Your task to perform on an android device: Add "razer blade" to the cart on bestbuy, then select checkout. Image 0: 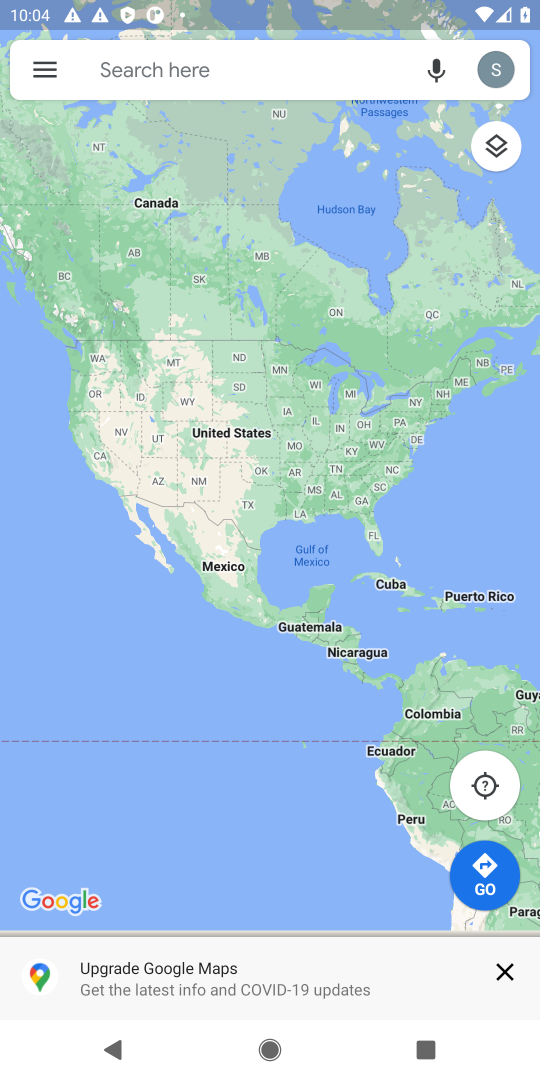
Step 0: press home button
Your task to perform on an android device: Add "razer blade" to the cart on bestbuy, then select checkout. Image 1: 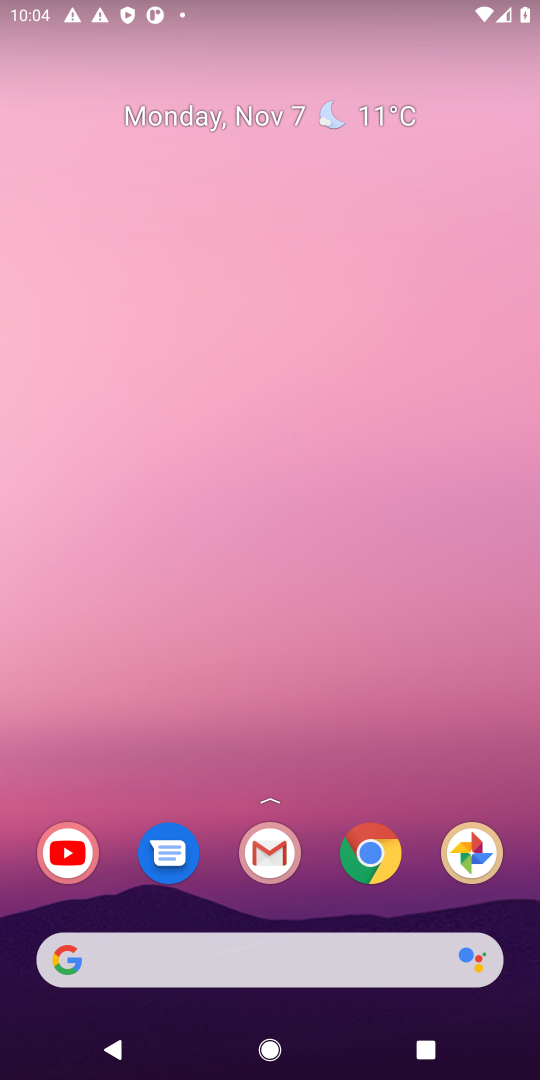
Step 1: click (386, 948)
Your task to perform on an android device: Add "razer blade" to the cart on bestbuy, then select checkout. Image 2: 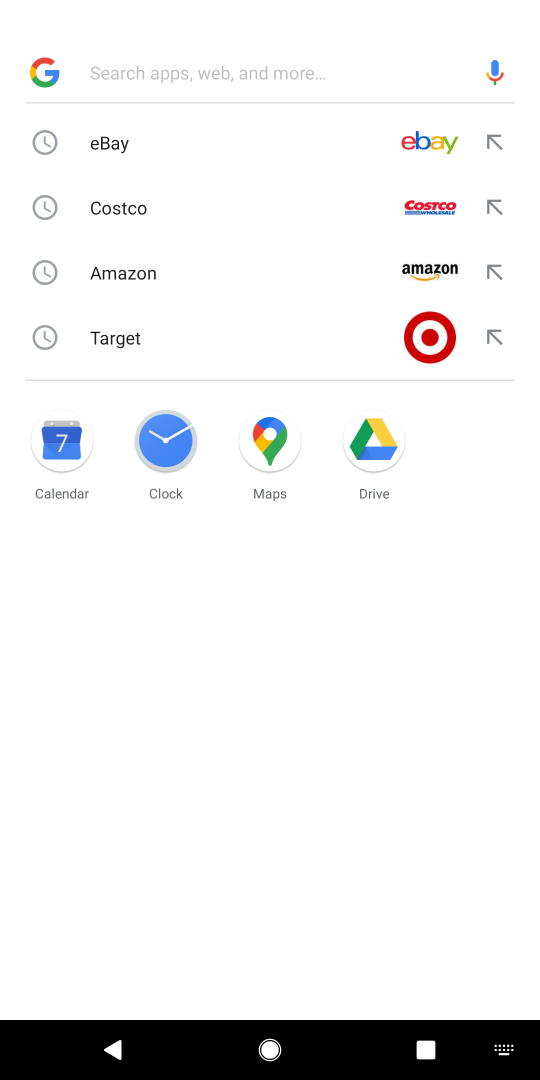
Step 2: type "bestbuy"
Your task to perform on an android device: Add "razer blade" to the cart on bestbuy, then select checkout. Image 3: 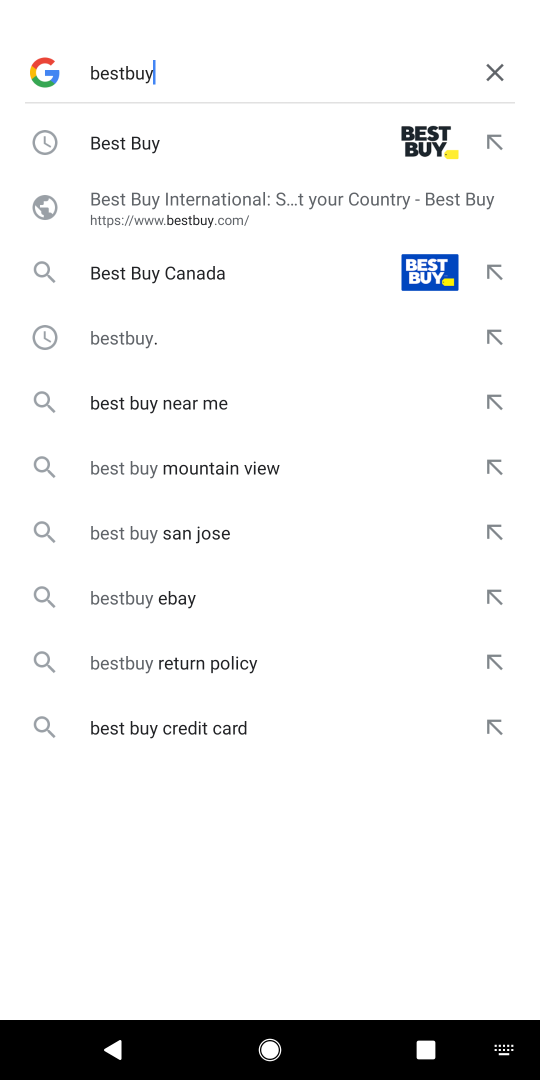
Step 3: click (199, 154)
Your task to perform on an android device: Add "razer blade" to the cart on bestbuy, then select checkout. Image 4: 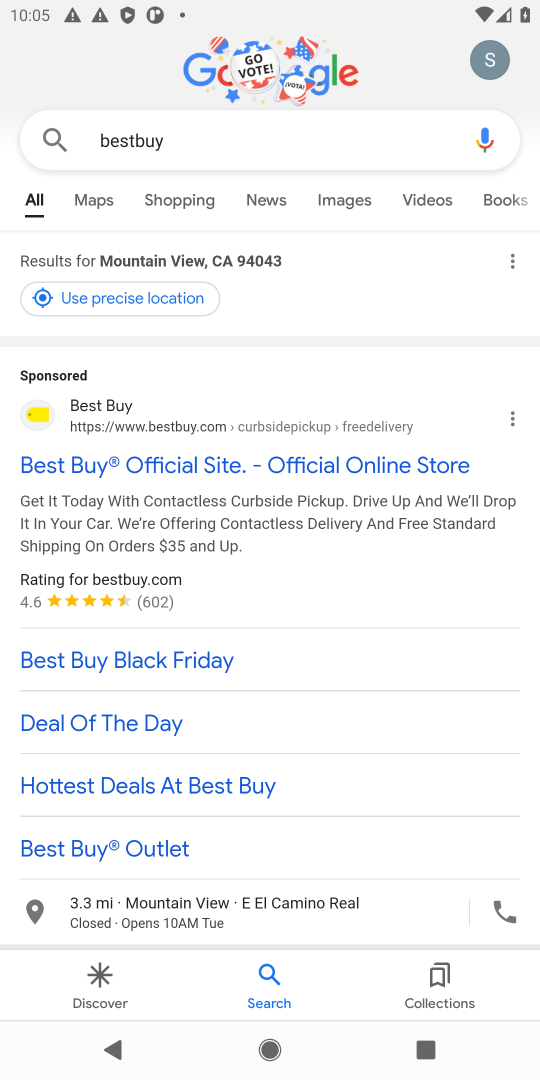
Step 4: click (313, 469)
Your task to perform on an android device: Add "razer blade" to the cart on bestbuy, then select checkout. Image 5: 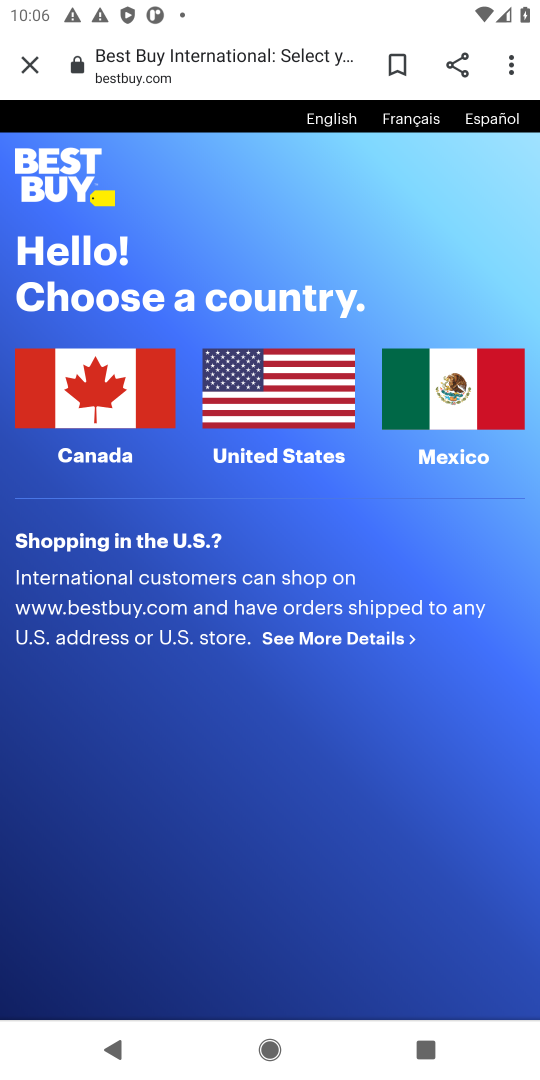
Step 5: click (28, 398)
Your task to perform on an android device: Add "razer blade" to the cart on bestbuy, then select checkout. Image 6: 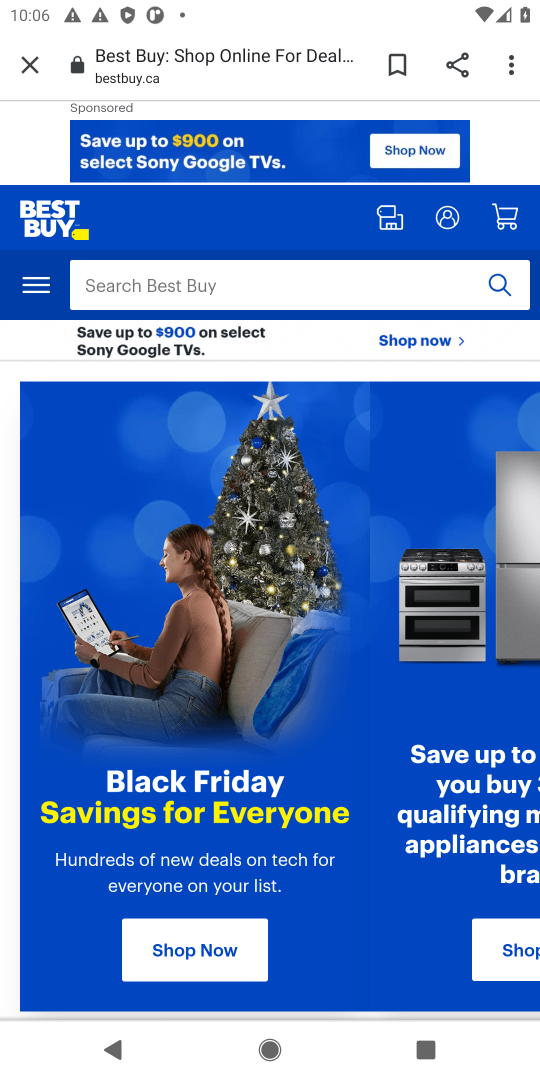
Step 6: click (267, 264)
Your task to perform on an android device: Add "razer blade" to the cart on bestbuy, then select checkout. Image 7: 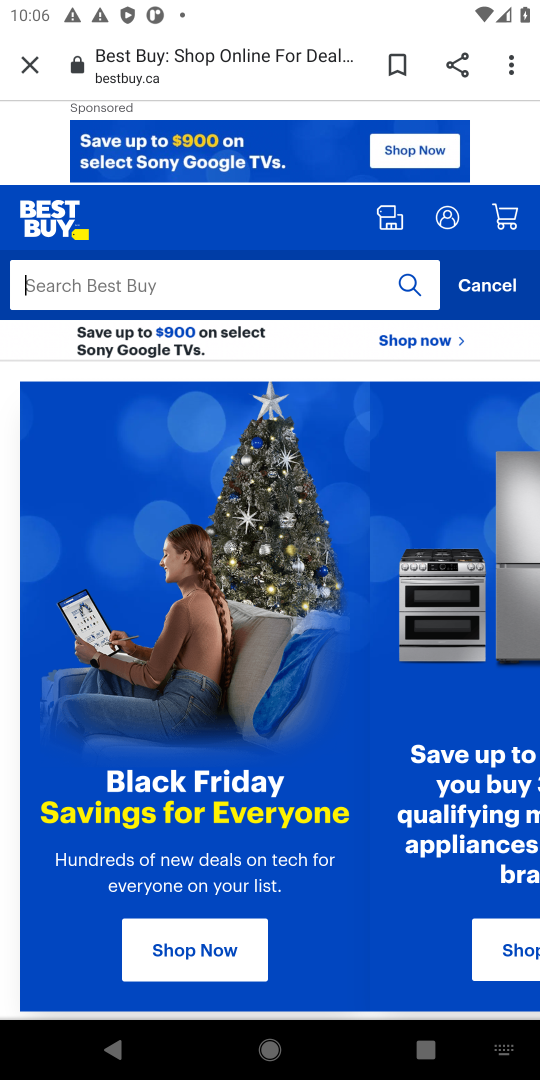
Step 7: type "razer blade"
Your task to perform on an android device: Add "razer blade" to the cart on bestbuy, then select checkout. Image 8: 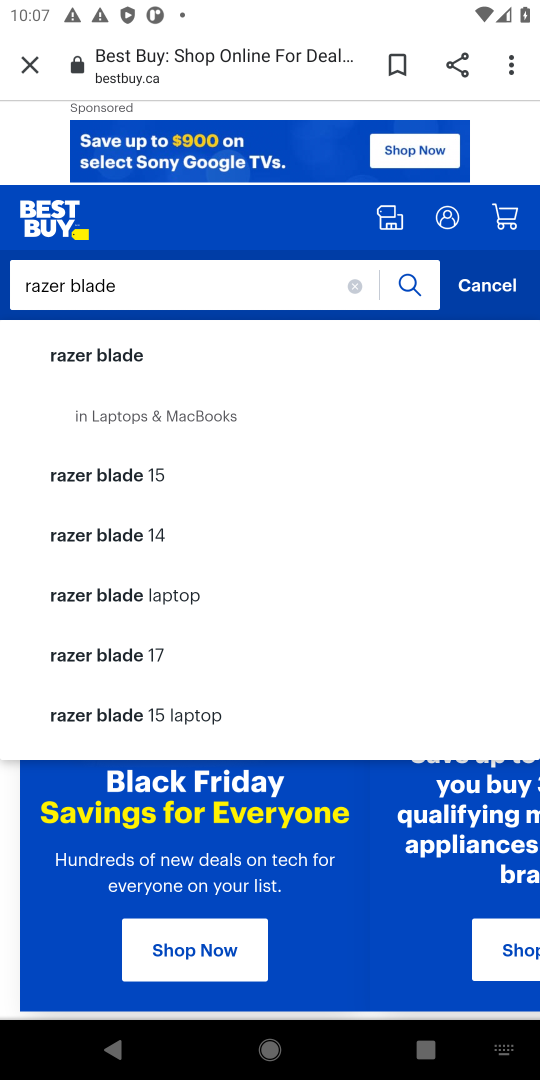
Step 8: click (191, 370)
Your task to perform on an android device: Add "razer blade" to the cart on bestbuy, then select checkout. Image 9: 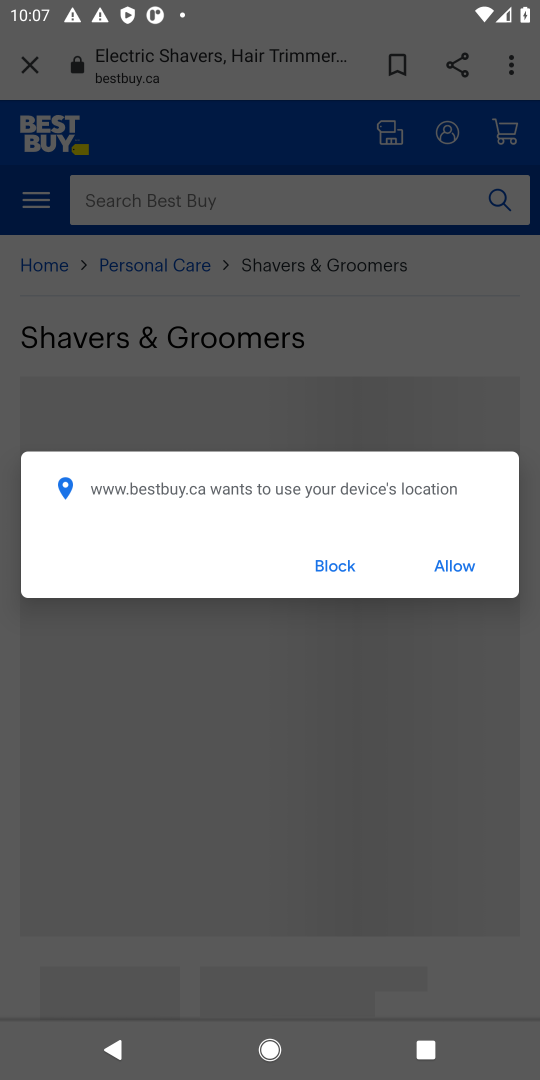
Step 9: click (360, 588)
Your task to perform on an android device: Add "razer blade" to the cart on bestbuy, then select checkout. Image 10: 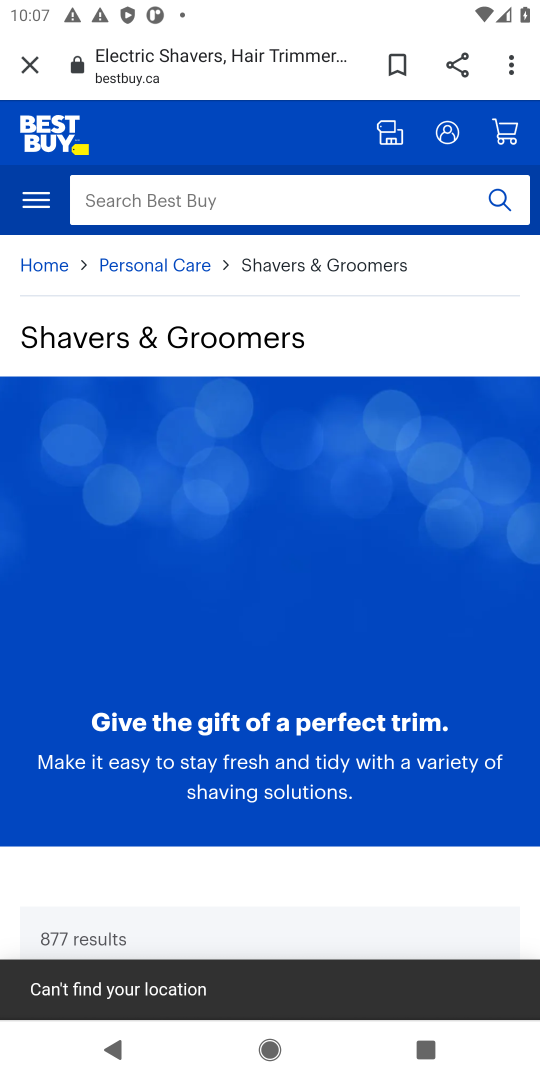
Step 10: task complete